Your task to perform on an android device: Go to calendar. Show me events next week Image 0: 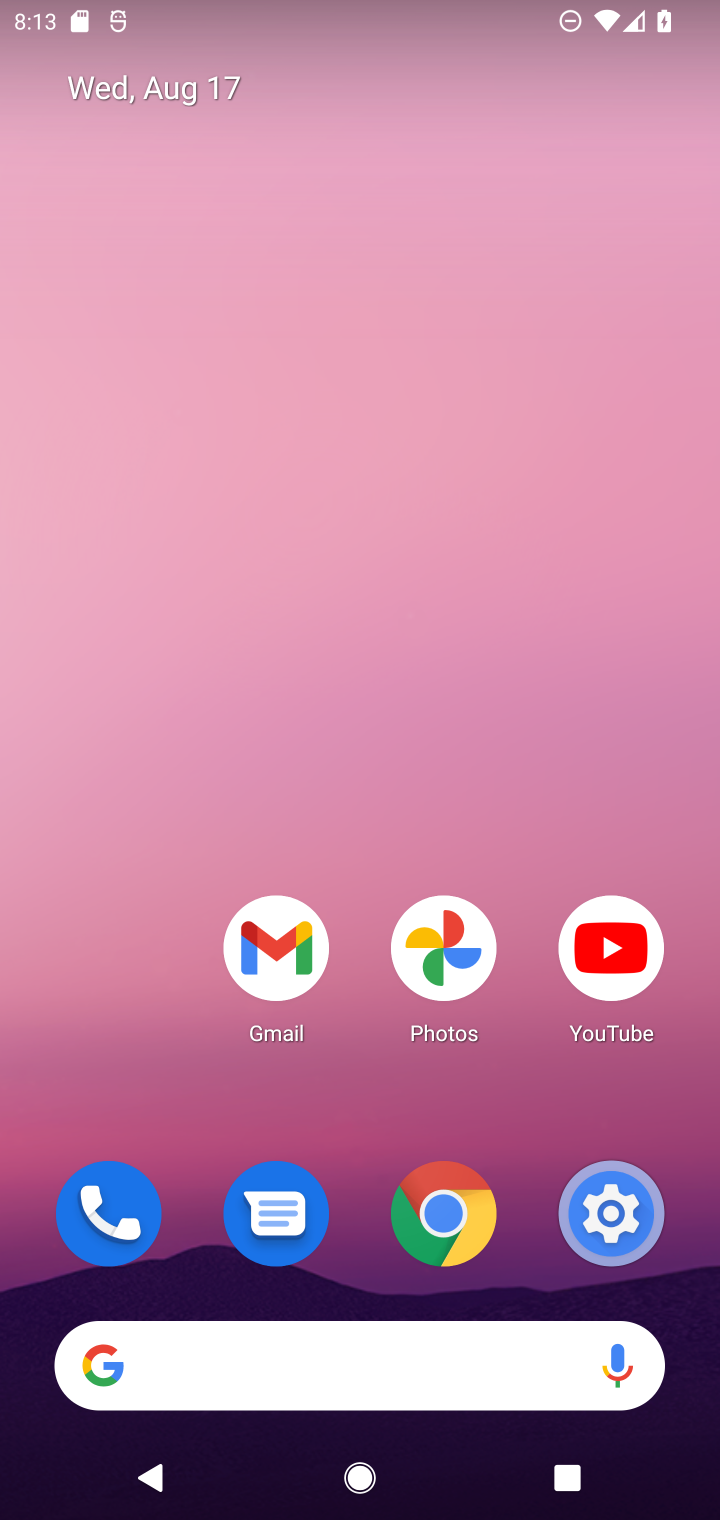
Step 0: drag from (504, 588) to (526, 224)
Your task to perform on an android device: Go to calendar. Show me events next week Image 1: 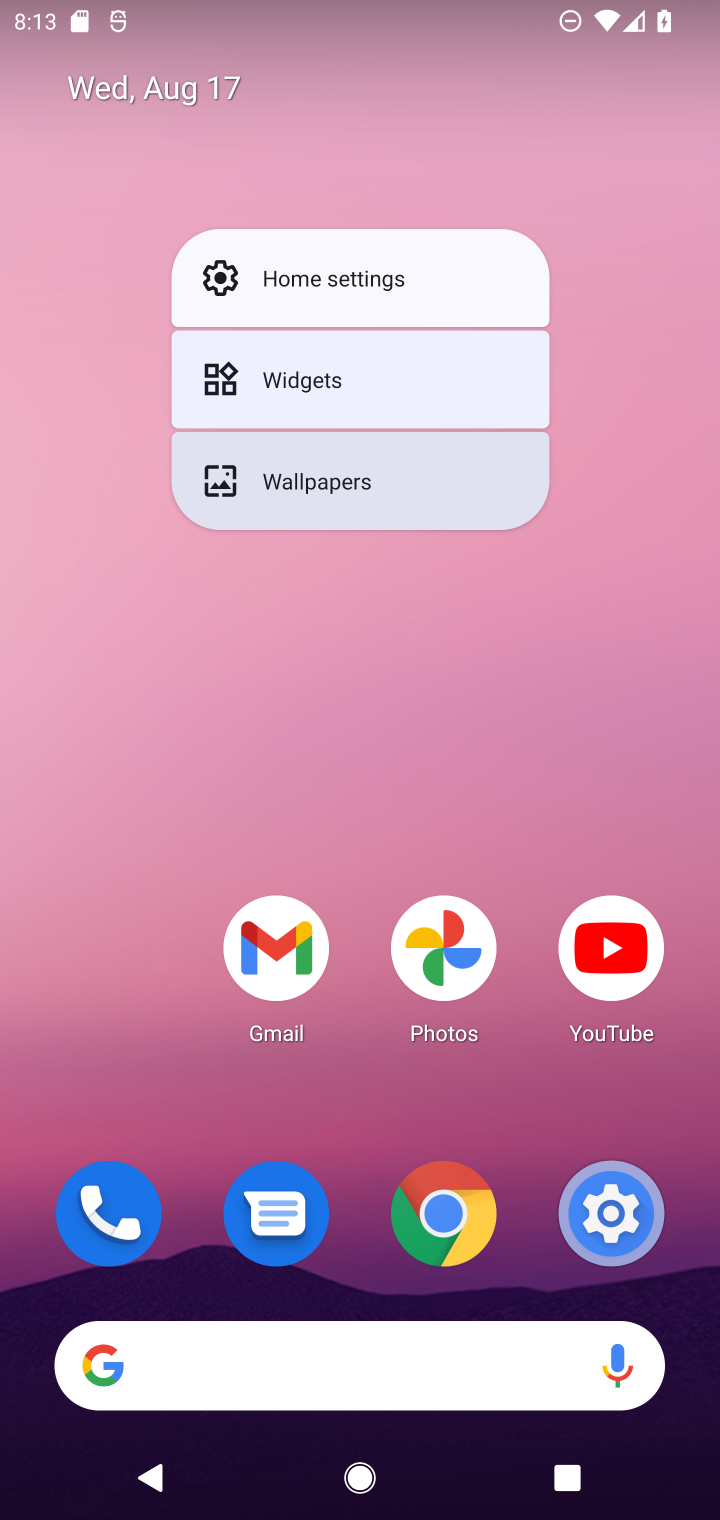
Step 1: click (520, 1263)
Your task to perform on an android device: Go to calendar. Show me events next week Image 2: 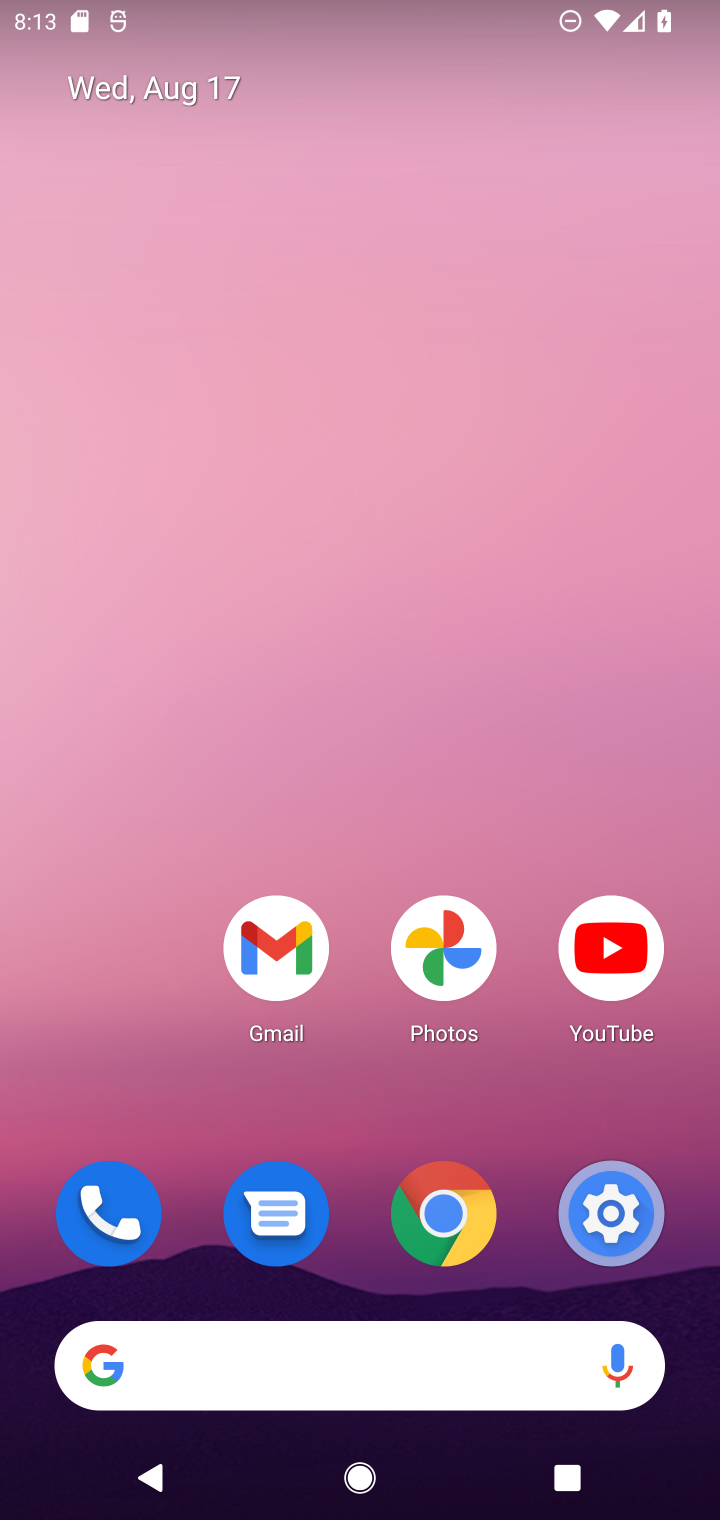
Step 2: drag from (520, 1263) to (520, 287)
Your task to perform on an android device: Go to calendar. Show me events next week Image 3: 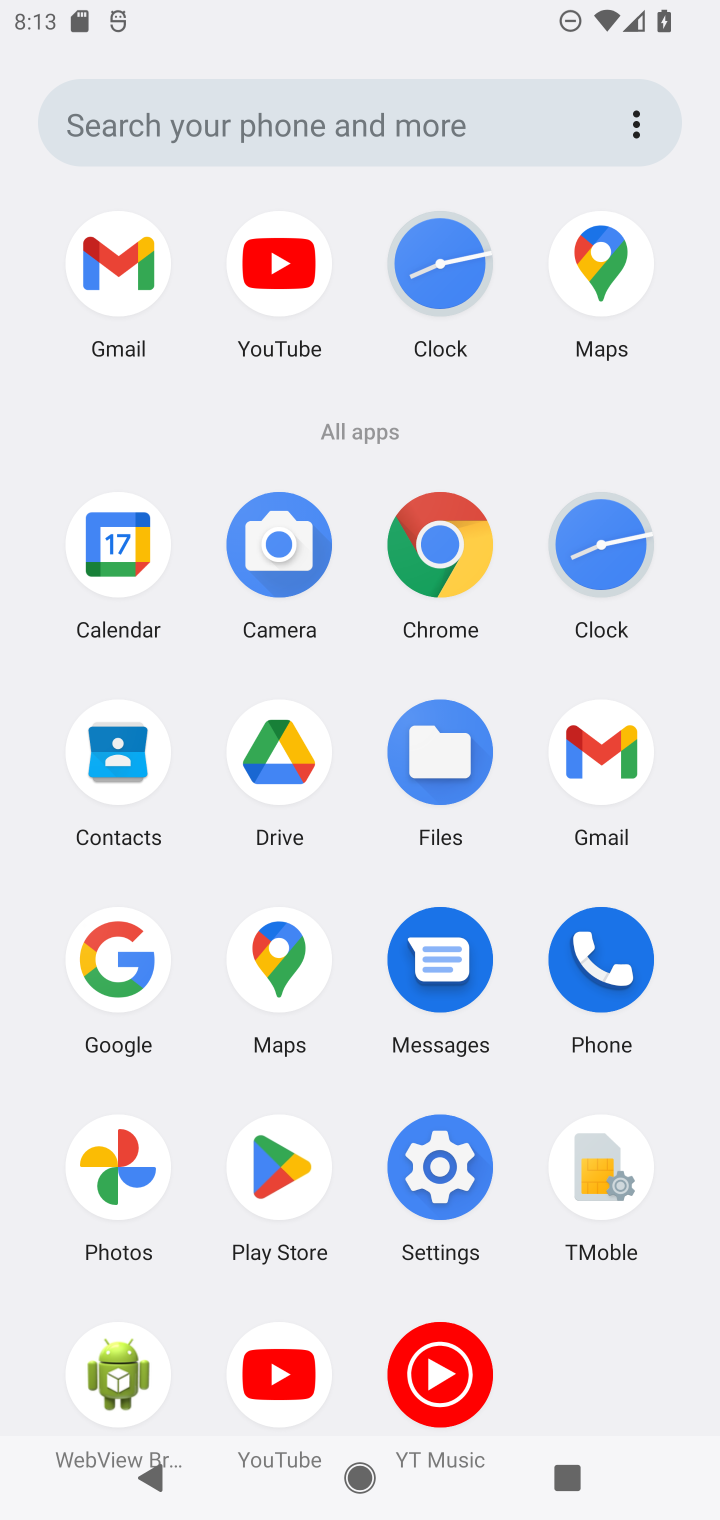
Step 3: click (147, 586)
Your task to perform on an android device: Go to calendar. Show me events next week Image 4: 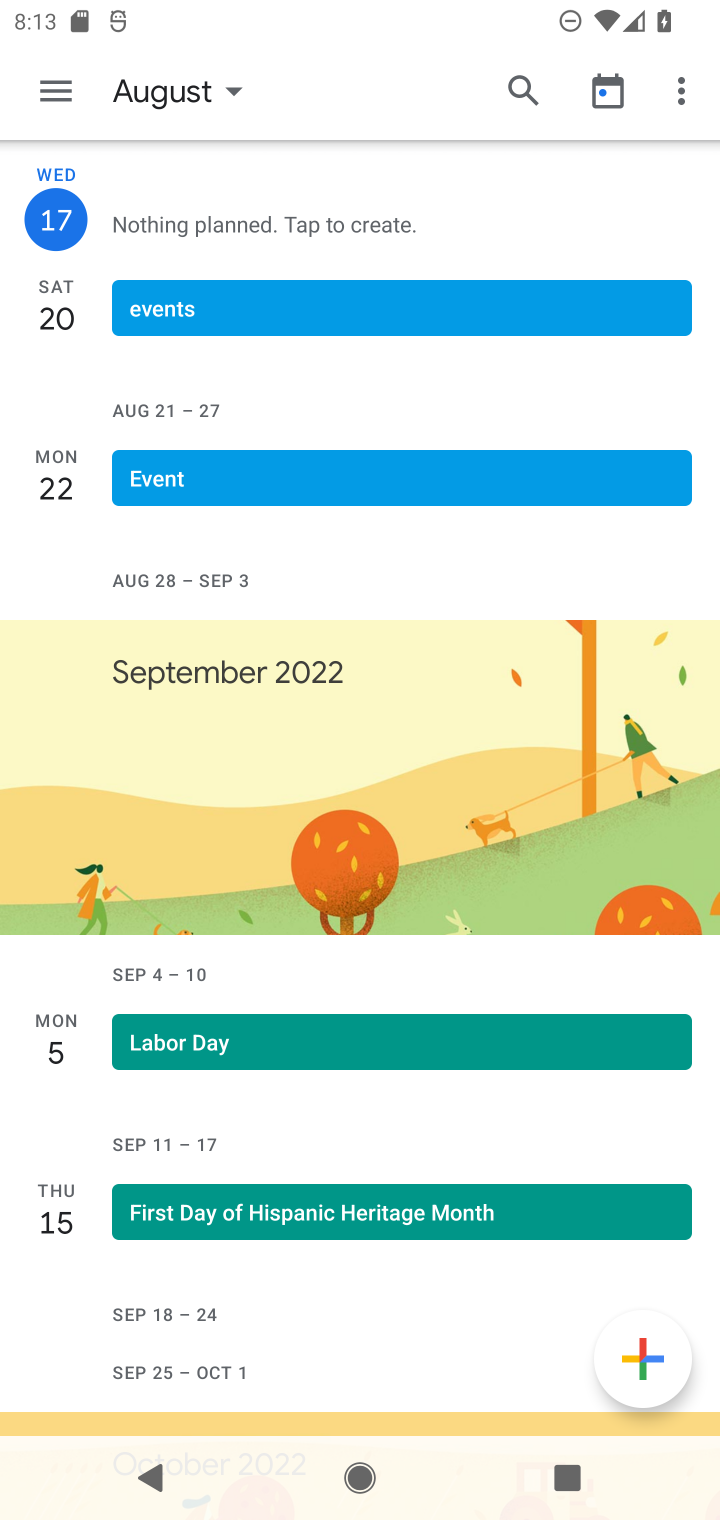
Step 4: task complete